Your task to perform on an android device: turn on data saver in the chrome app Image 0: 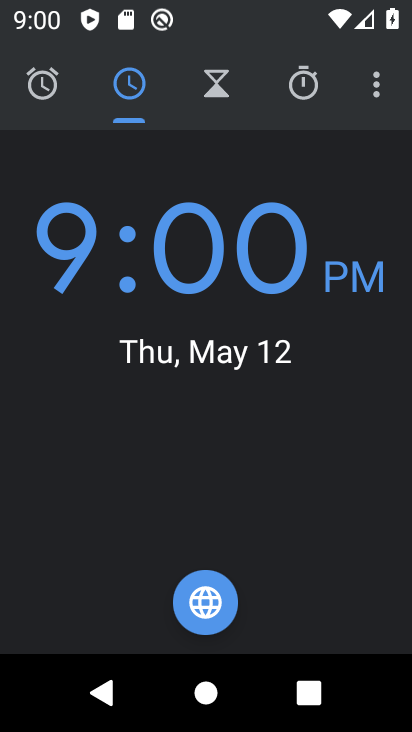
Step 0: press home button
Your task to perform on an android device: turn on data saver in the chrome app Image 1: 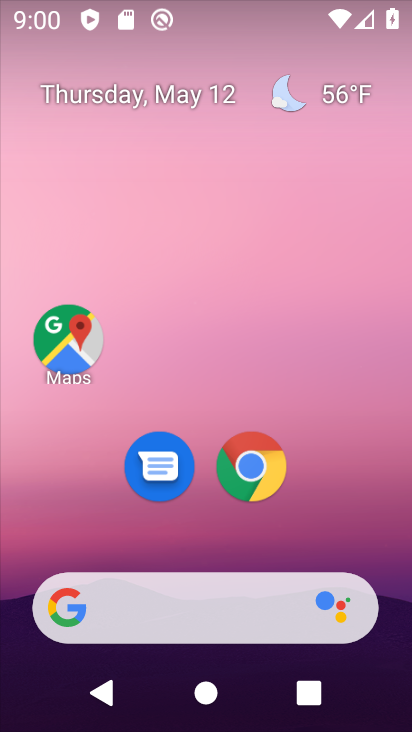
Step 1: click (272, 486)
Your task to perform on an android device: turn on data saver in the chrome app Image 2: 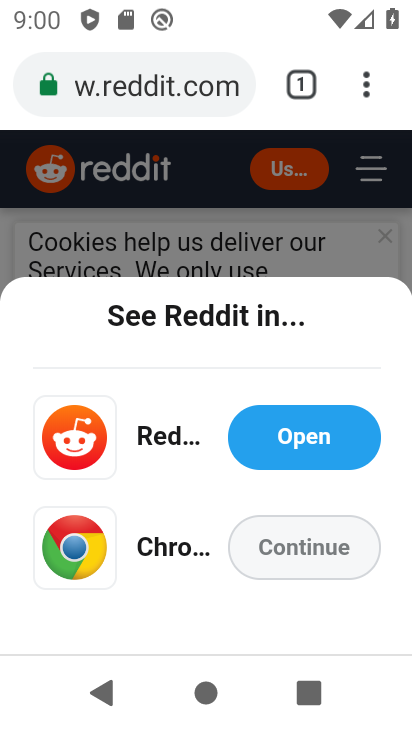
Step 2: drag from (368, 81) to (182, 524)
Your task to perform on an android device: turn on data saver in the chrome app Image 3: 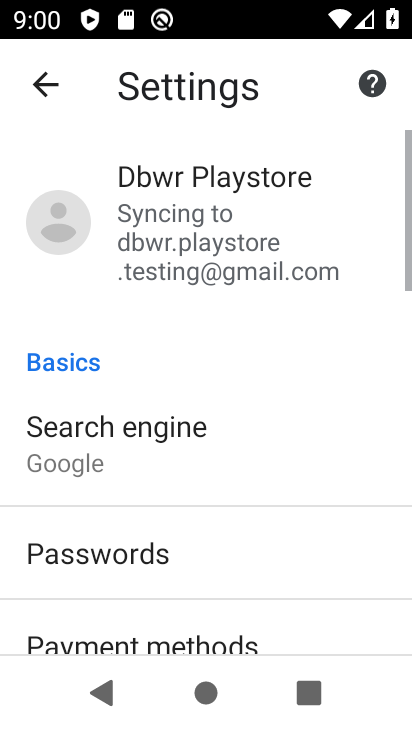
Step 3: drag from (202, 622) to (189, 195)
Your task to perform on an android device: turn on data saver in the chrome app Image 4: 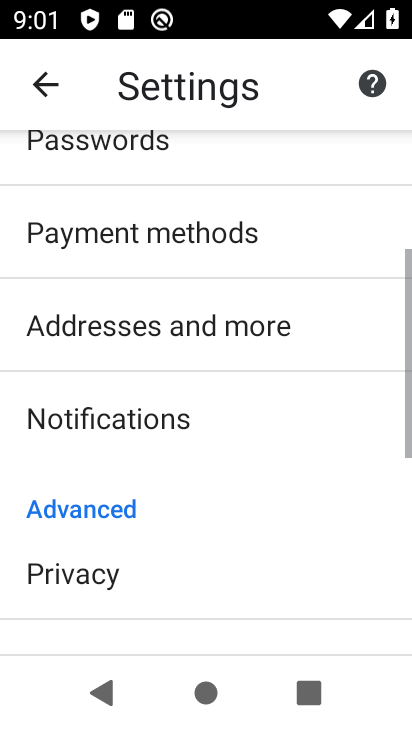
Step 4: drag from (204, 515) to (205, 309)
Your task to perform on an android device: turn on data saver in the chrome app Image 5: 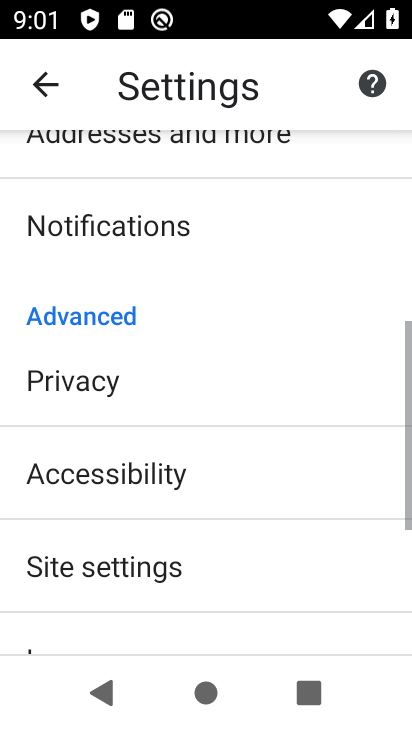
Step 5: drag from (229, 500) to (222, 307)
Your task to perform on an android device: turn on data saver in the chrome app Image 6: 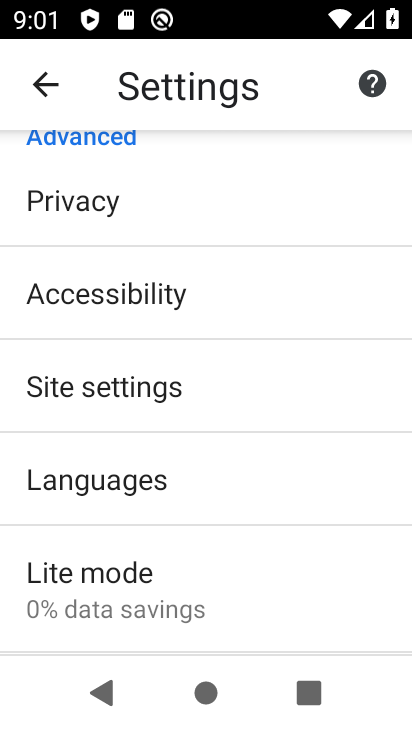
Step 6: click (158, 571)
Your task to perform on an android device: turn on data saver in the chrome app Image 7: 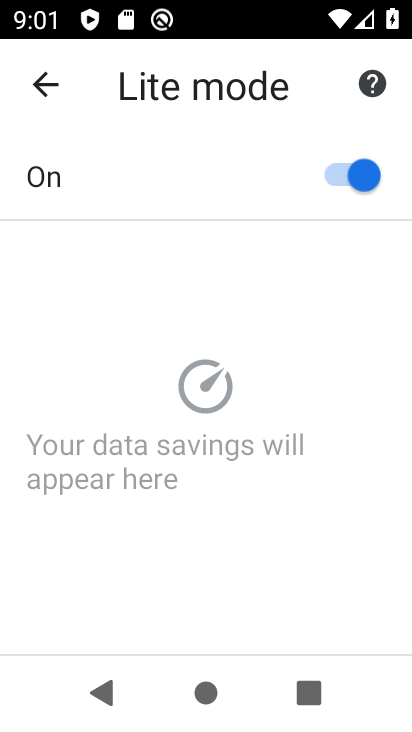
Step 7: task complete